Your task to perform on an android device: find photos in the google photos app Image 0: 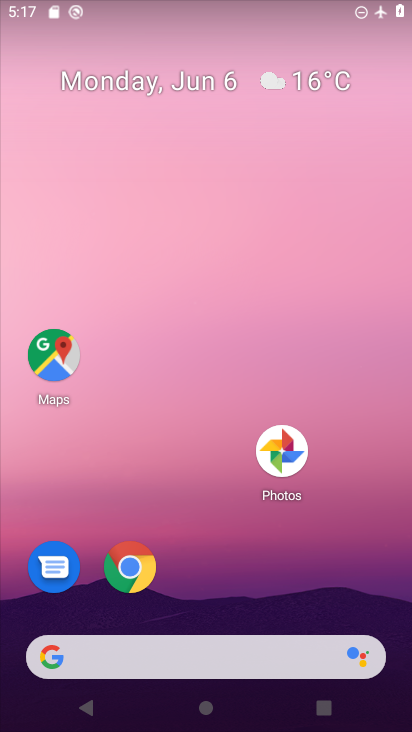
Step 0: drag from (307, 657) to (191, 356)
Your task to perform on an android device: find photos in the google photos app Image 1: 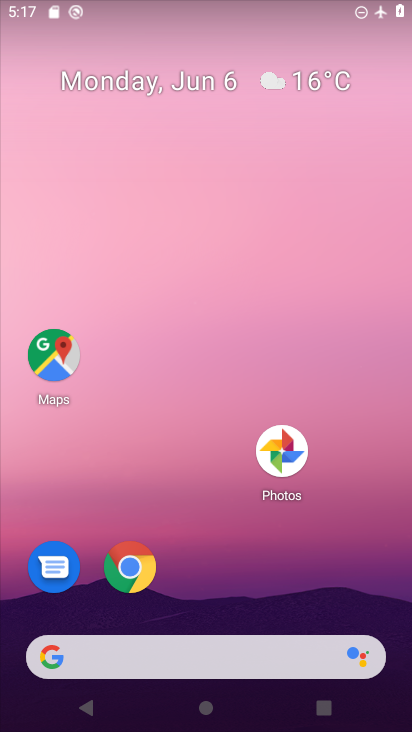
Step 1: drag from (279, 635) to (225, 335)
Your task to perform on an android device: find photos in the google photos app Image 2: 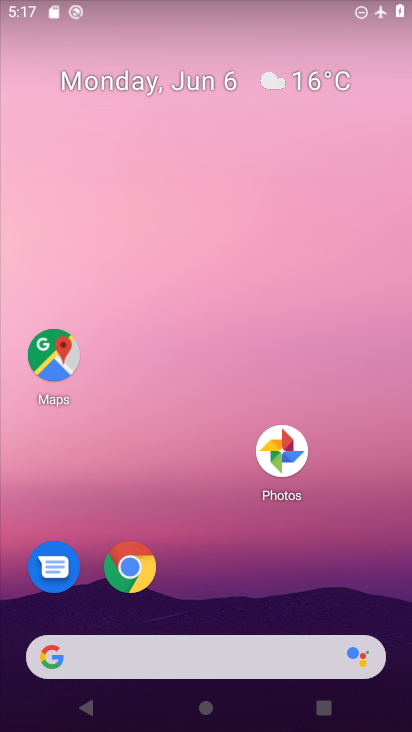
Step 2: drag from (244, 729) to (139, 237)
Your task to perform on an android device: find photos in the google photos app Image 3: 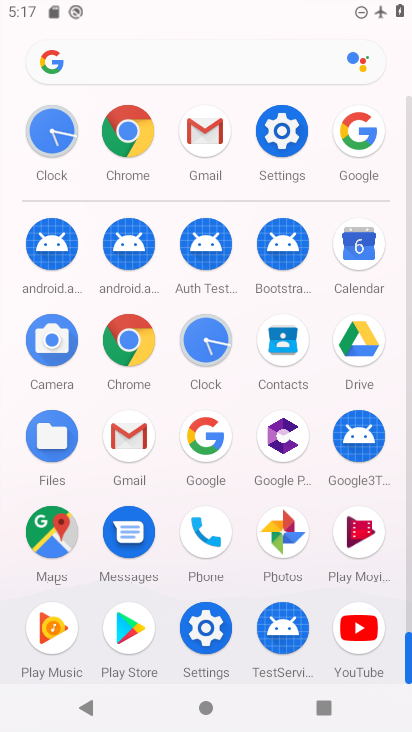
Step 3: click (294, 537)
Your task to perform on an android device: find photos in the google photos app Image 4: 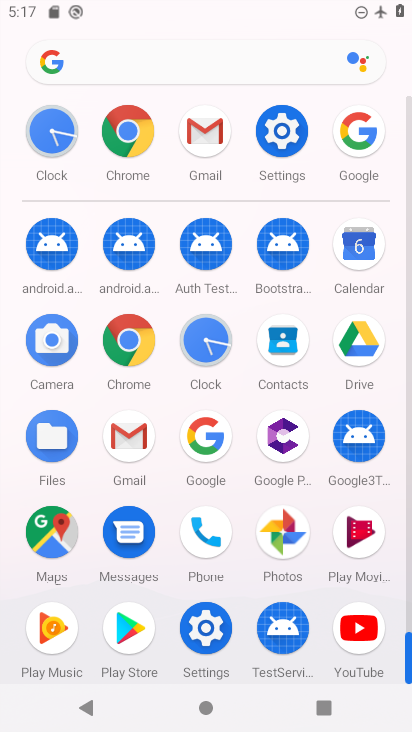
Step 4: click (294, 537)
Your task to perform on an android device: find photos in the google photos app Image 5: 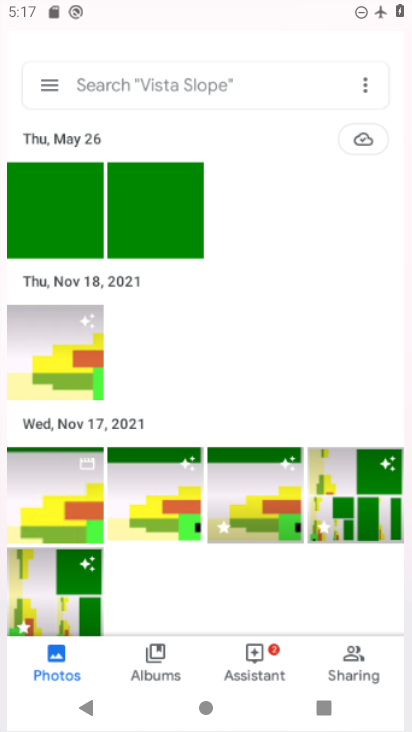
Step 5: click (294, 534)
Your task to perform on an android device: find photos in the google photos app Image 6: 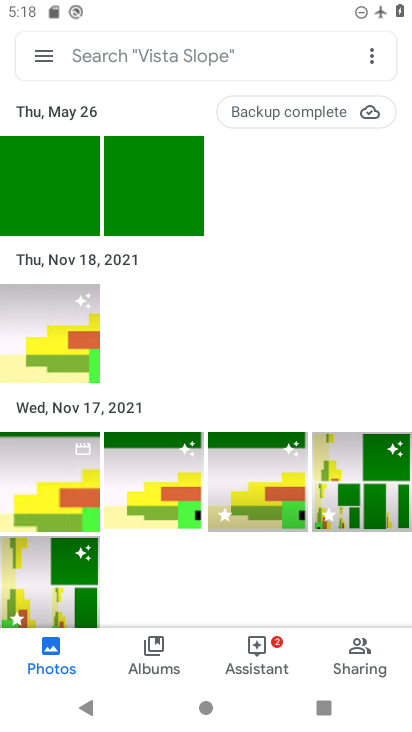
Step 6: task complete